Your task to perform on an android device: toggle show notifications on the lock screen Image 0: 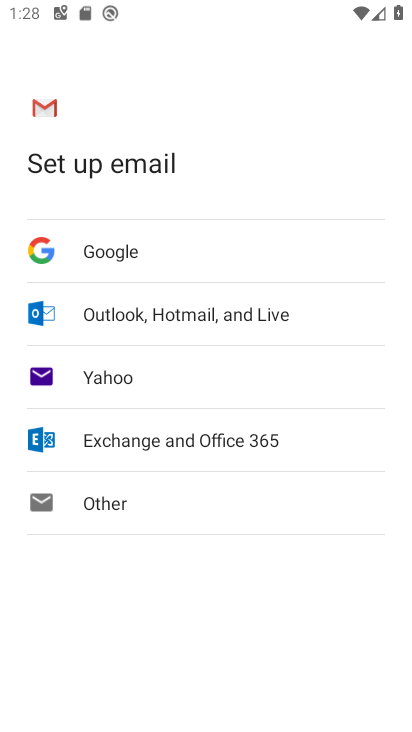
Step 0: press back button
Your task to perform on an android device: toggle show notifications on the lock screen Image 1: 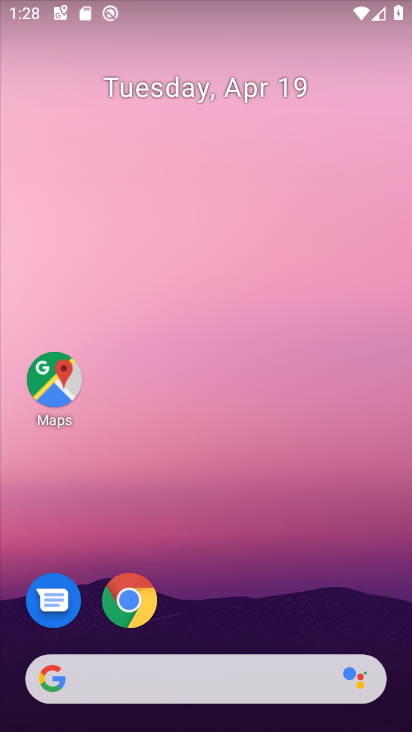
Step 1: drag from (271, 560) to (234, 3)
Your task to perform on an android device: toggle show notifications on the lock screen Image 2: 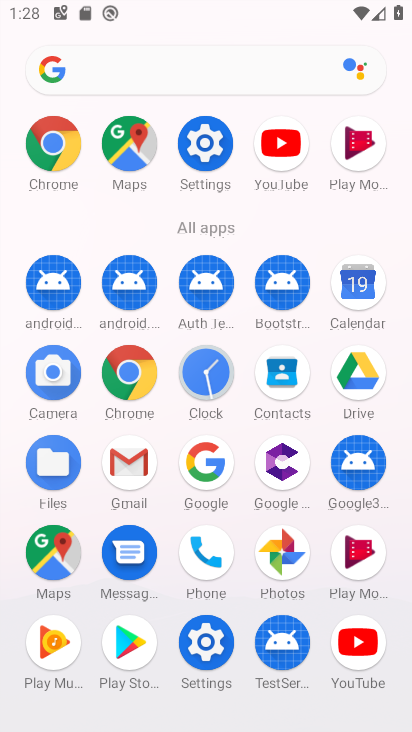
Step 2: click (207, 141)
Your task to perform on an android device: toggle show notifications on the lock screen Image 3: 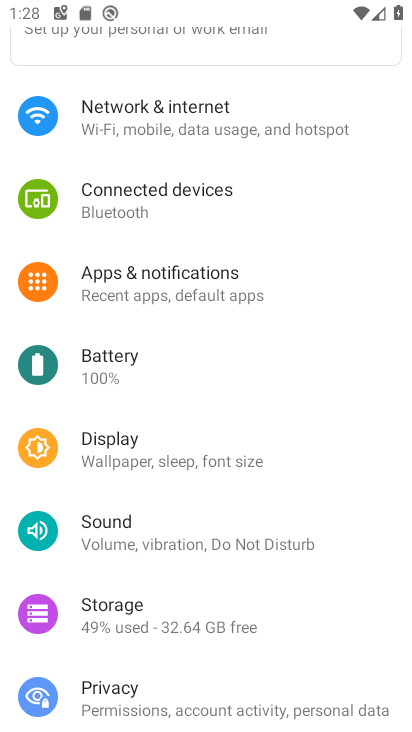
Step 3: drag from (245, 537) to (290, 190)
Your task to perform on an android device: toggle show notifications on the lock screen Image 4: 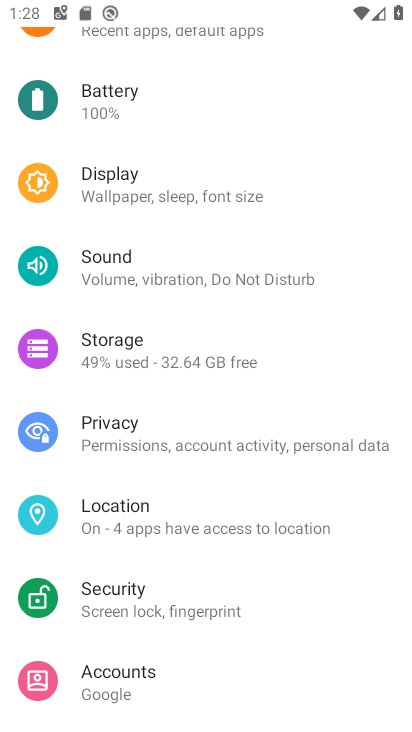
Step 4: drag from (288, 189) to (277, 436)
Your task to perform on an android device: toggle show notifications on the lock screen Image 5: 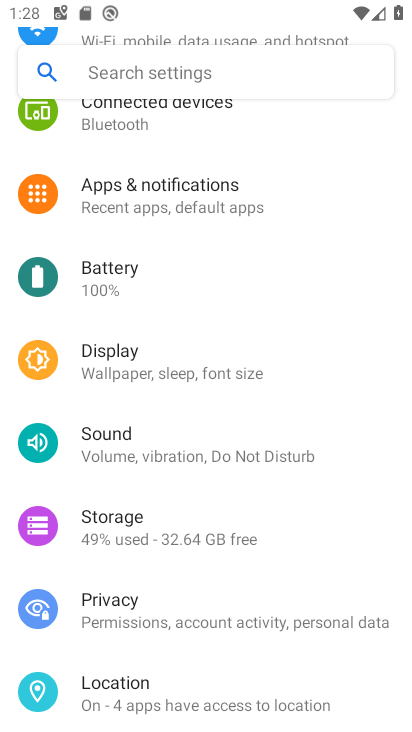
Step 5: click (217, 193)
Your task to perform on an android device: toggle show notifications on the lock screen Image 6: 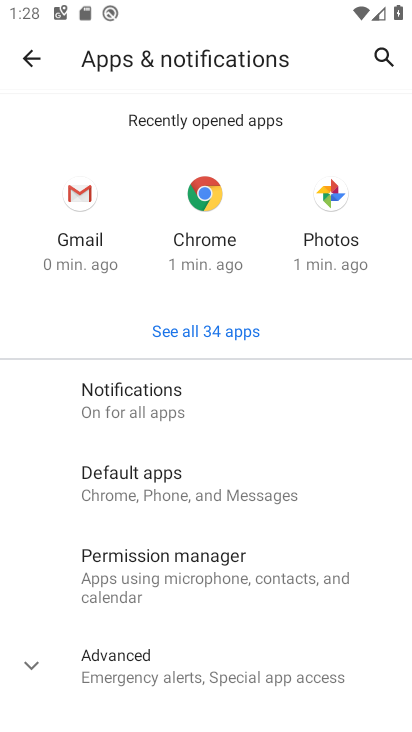
Step 6: drag from (376, 550) to (392, 185)
Your task to perform on an android device: toggle show notifications on the lock screen Image 7: 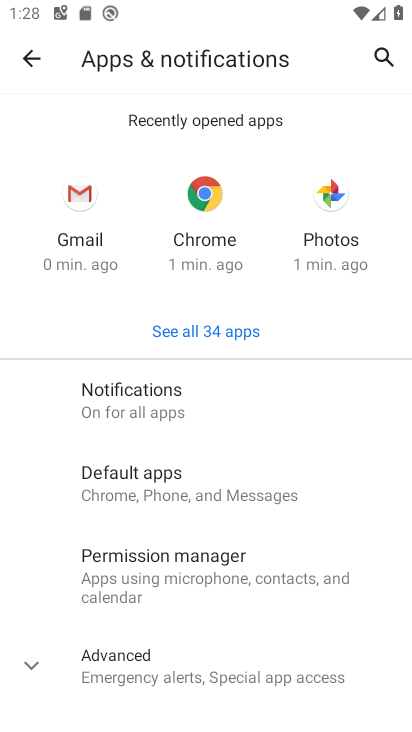
Step 7: click (30, 667)
Your task to perform on an android device: toggle show notifications on the lock screen Image 8: 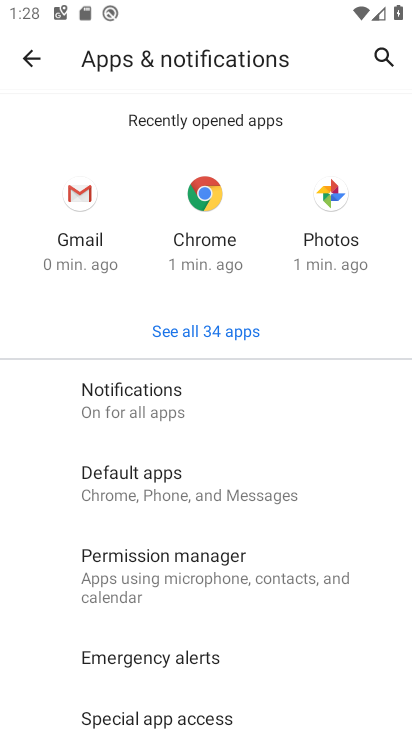
Step 8: click (179, 395)
Your task to perform on an android device: toggle show notifications on the lock screen Image 9: 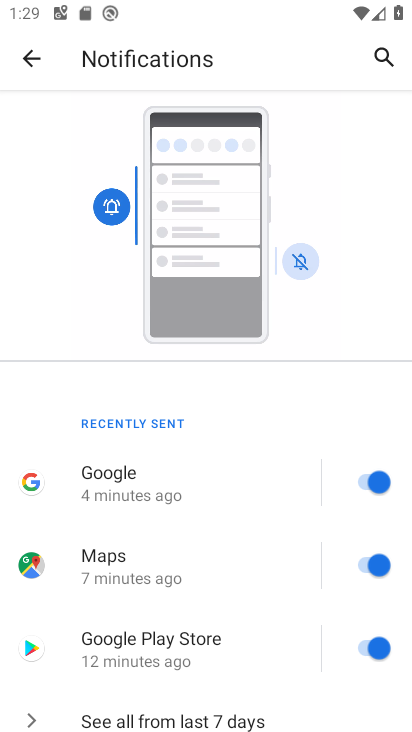
Step 9: drag from (234, 549) to (271, 130)
Your task to perform on an android device: toggle show notifications on the lock screen Image 10: 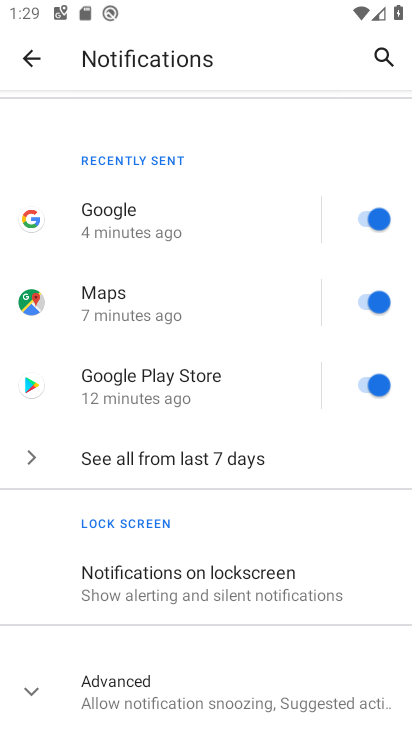
Step 10: drag from (235, 572) to (241, 149)
Your task to perform on an android device: toggle show notifications on the lock screen Image 11: 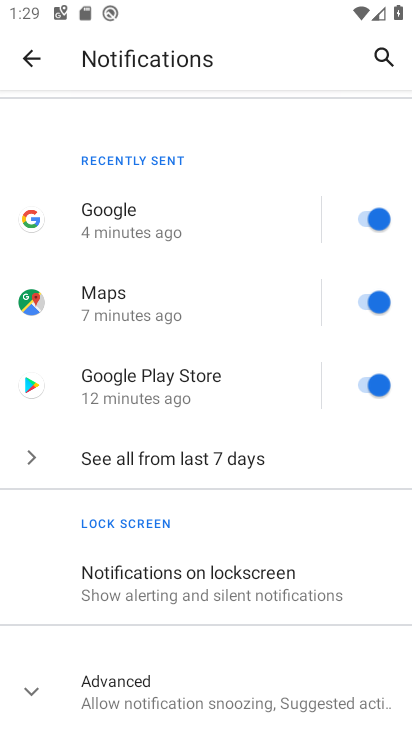
Step 11: click (33, 695)
Your task to perform on an android device: toggle show notifications on the lock screen Image 12: 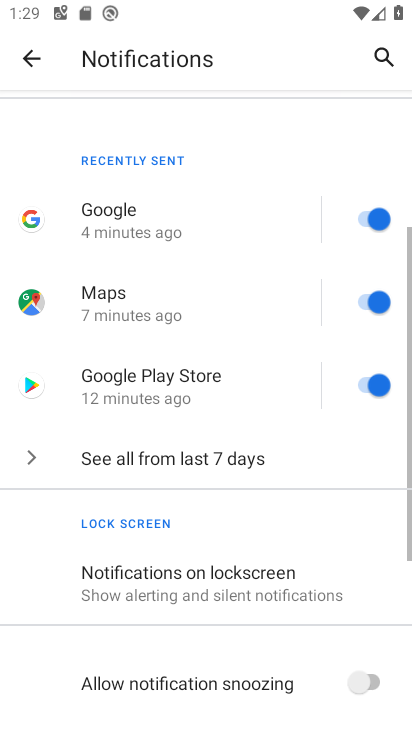
Step 12: drag from (224, 670) to (247, 199)
Your task to perform on an android device: toggle show notifications on the lock screen Image 13: 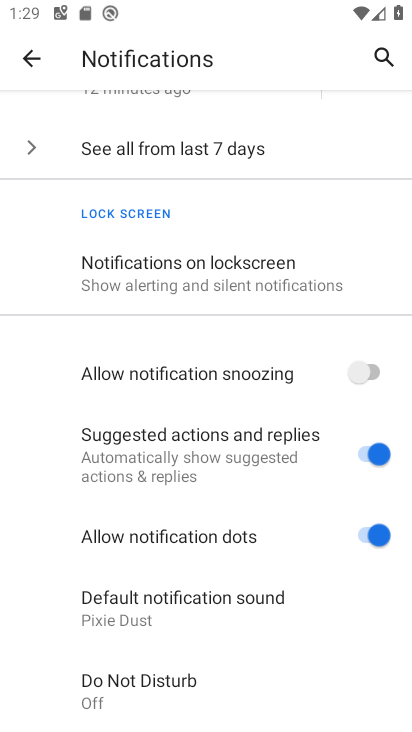
Step 13: drag from (224, 616) to (240, 201)
Your task to perform on an android device: toggle show notifications on the lock screen Image 14: 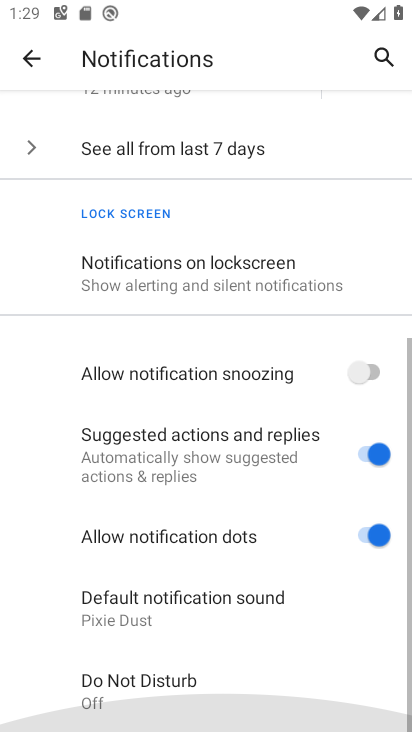
Step 14: drag from (236, 205) to (215, 563)
Your task to perform on an android device: toggle show notifications on the lock screen Image 15: 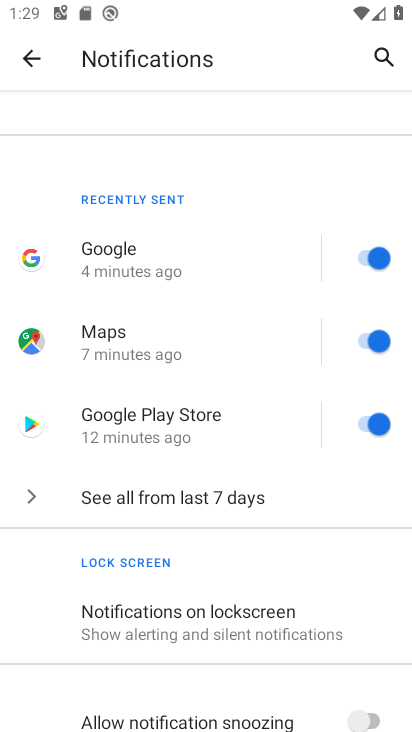
Step 15: drag from (274, 100) to (239, 517)
Your task to perform on an android device: toggle show notifications on the lock screen Image 16: 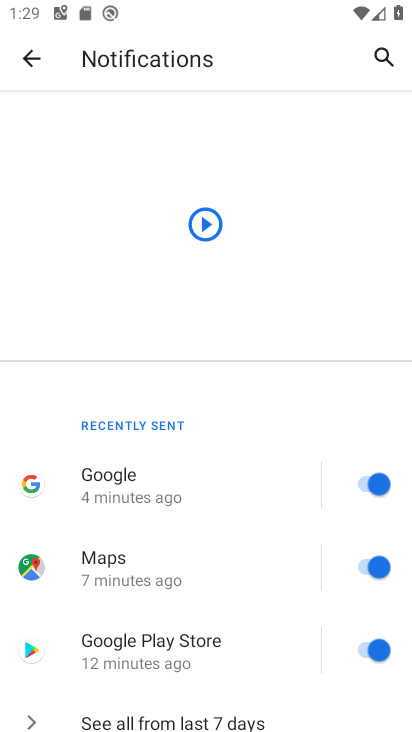
Step 16: drag from (219, 577) to (267, 115)
Your task to perform on an android device: toggle show notifications on the lock screen Image 17: 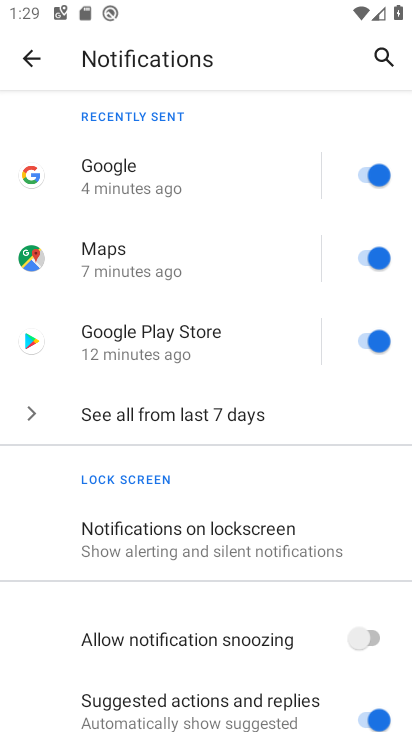
Step 17: click (182, 704)
Your task to perform on an android device: toggle show notifications on the lock screen Image 18: 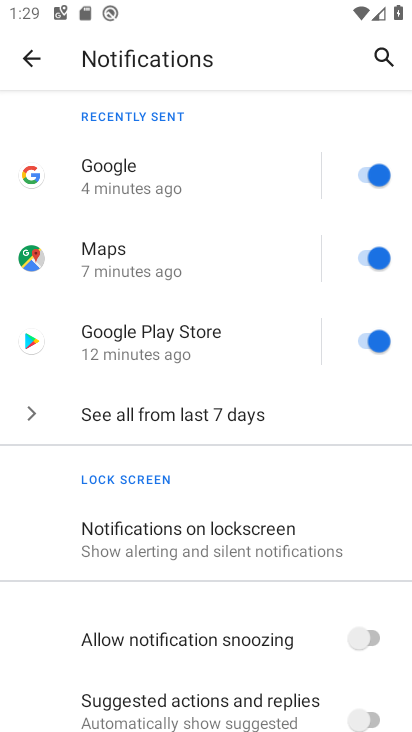
Step 18: click (167, 556)
Your task to perform on an android device: toggle show notifications on the lock screen Image 19: 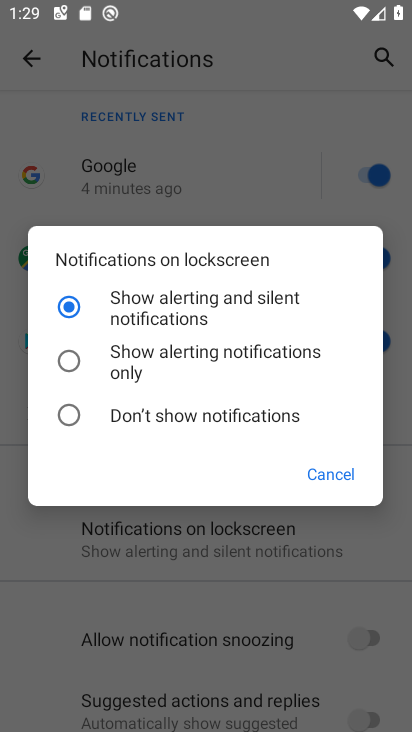
Step 19: click (155, 370)
Your task to perform on an android device: toggle show notifications on the lock screen Image 20: 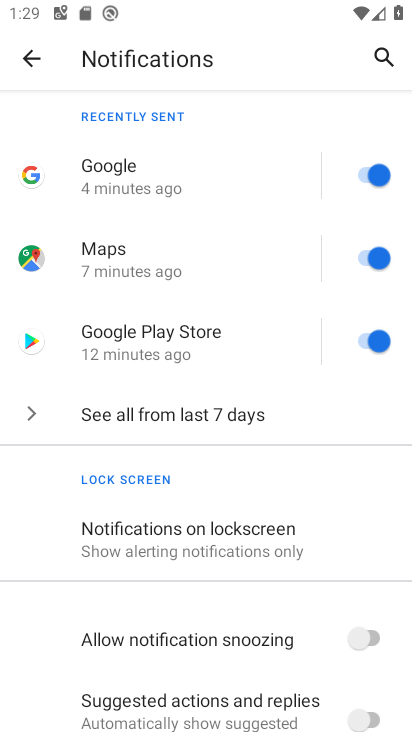
Step 20: task complete